Your task to perform on an android device: choose inbox layout in the gmail app Image 0: 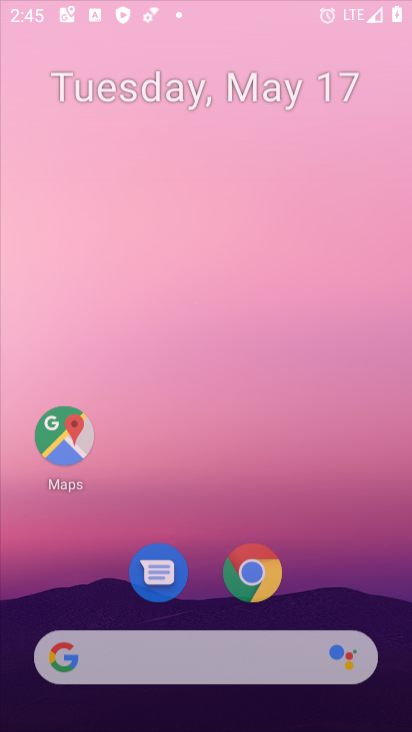
Step 0: click (263, 156)
Your task to perform on an android device: choose inbox layout in the gmail app Image 1: 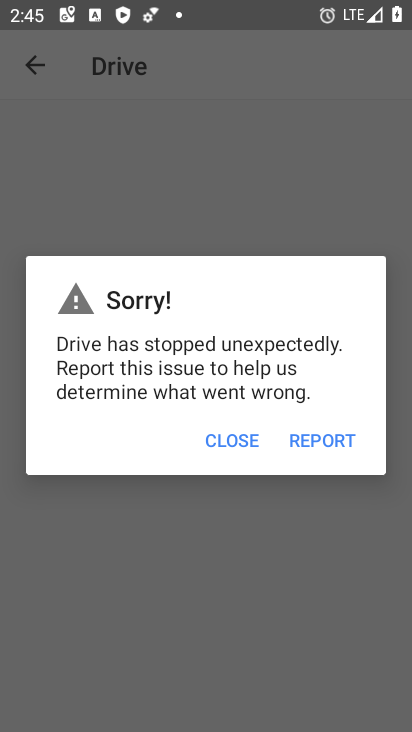
Step 1: press home button
Your task to perform on an android device: choose inbox layout in the gmail app Image 2: 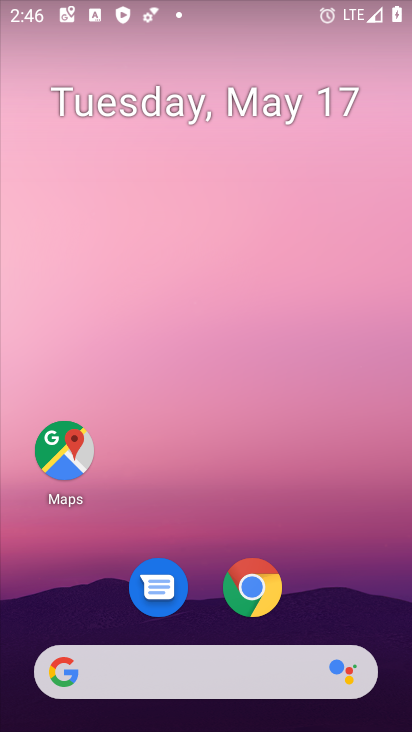
Step 2: drag from (213, 507) to (182, 40)
Your task to perform on an android device: choose inbox layout in the gmail app Image 3: 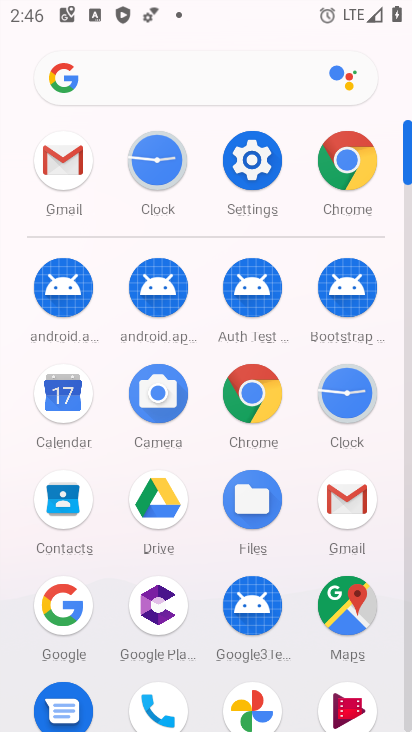
Step 3: click (343, 504)
Your task to perform on an android device: choose inbox layout in the gmail app Image 4: 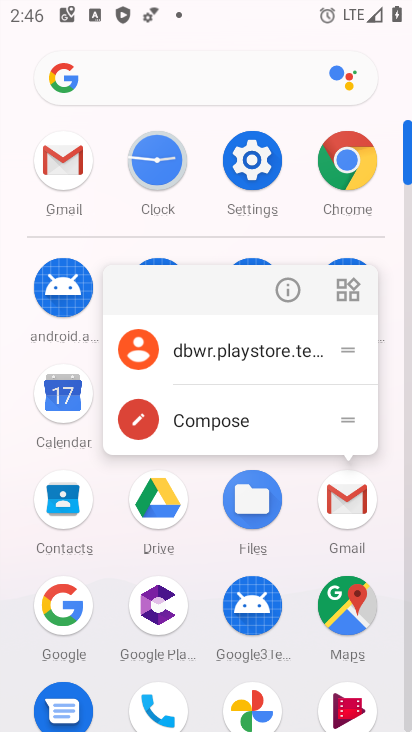
Step 4: click (227, 336)
Your task to perform on an android device: choose inbox layout in the gmail app Image 5: 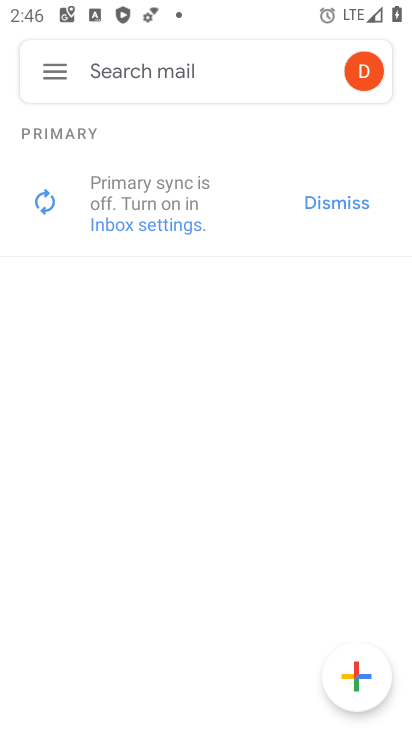
Step 5: click (44, 59)
Your task to perform on an android device: choose inbox layout in the gmail app Image 6: 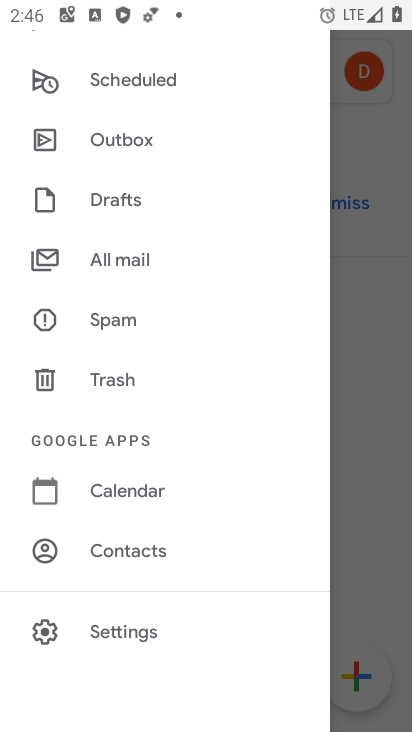
Step 6: drag from (140, 502) to (146, 204)
Your task to perform on an android device: choose inbox layout in the gmail app Image 7: 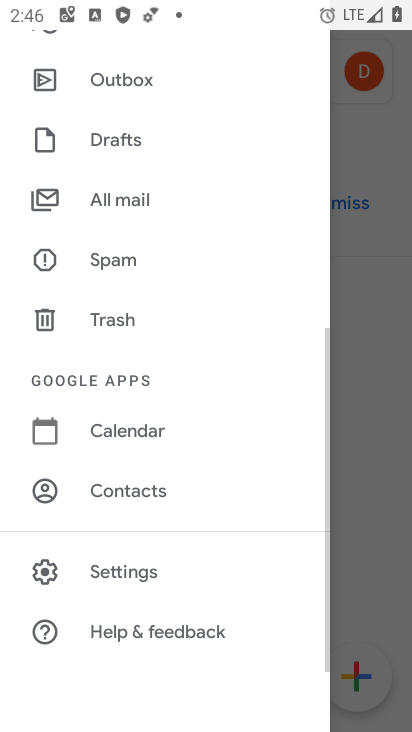
Step 7: drag from (178, 227) to (288, 712)
Your task to perform on an android device: choose inbox layout in the gmail app Image 8: 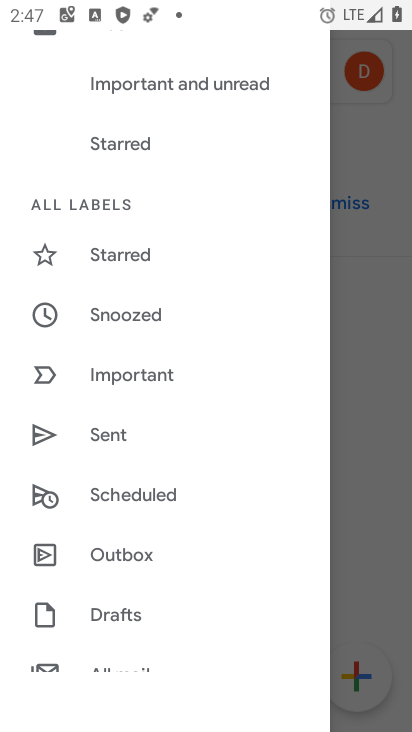
Step 8: drag from (141, 583) to (182, 166)
Your task to perform on an android device: choose inbox layout in the gmail app Image 9: 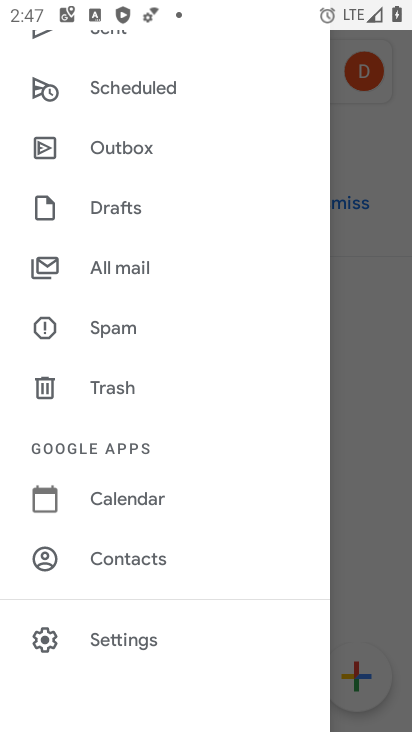
Step 9: drag from (113, 155) to (250, 700)
Your task to perform on an android device: choose inbox layout in the gmail app Image 10: 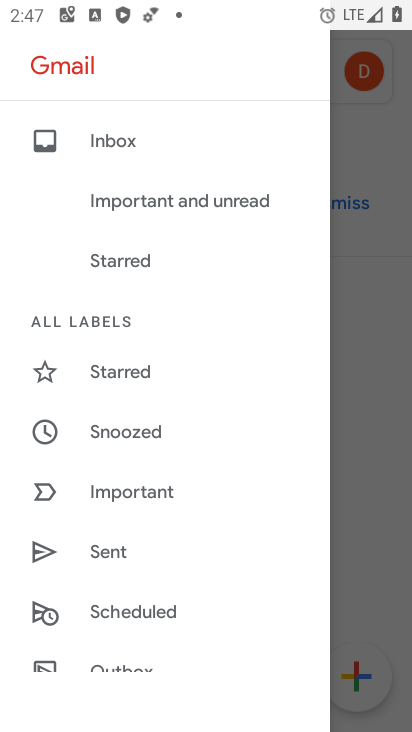
Step 10: click (108, 146)
Your task to perform on an android device: choose inbox layout in the gmail app Image 11: 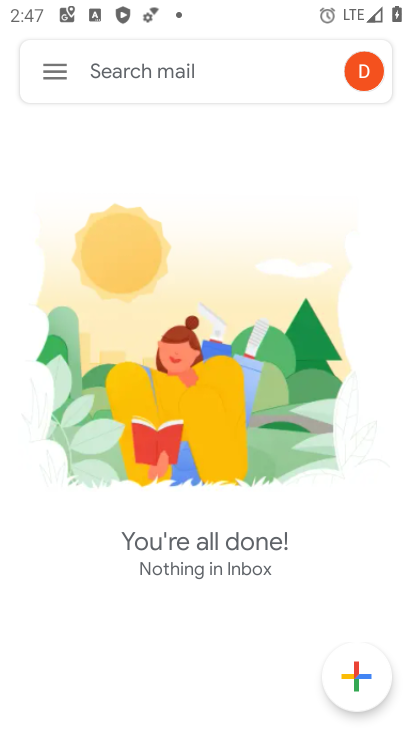
Step 11: task complete